Your task to perform on an android device: Show me recent news Image 0: 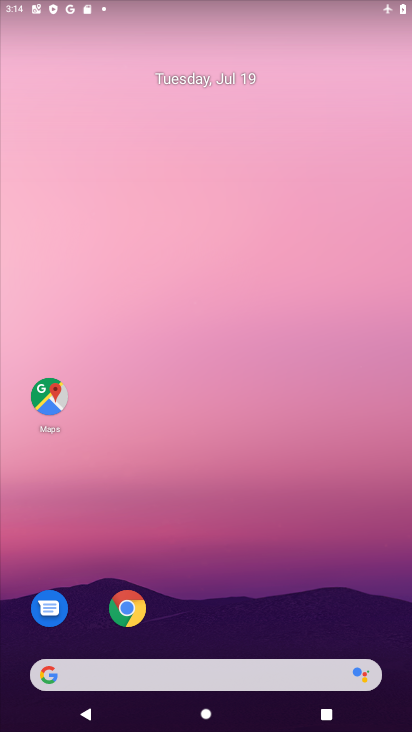
Step 0: drag from (312, 610) to (122, 156)
Your task to perform on an android device: Show me recent news Image 1: 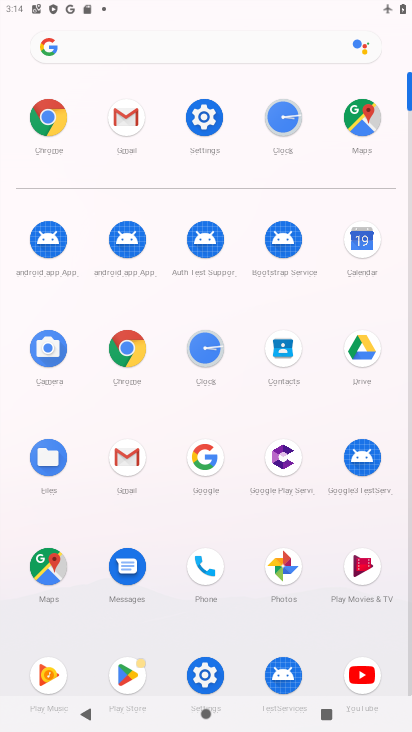
Step 1: click (52, 115)
Your task to perform on an android device: Show me recent news Image 2: 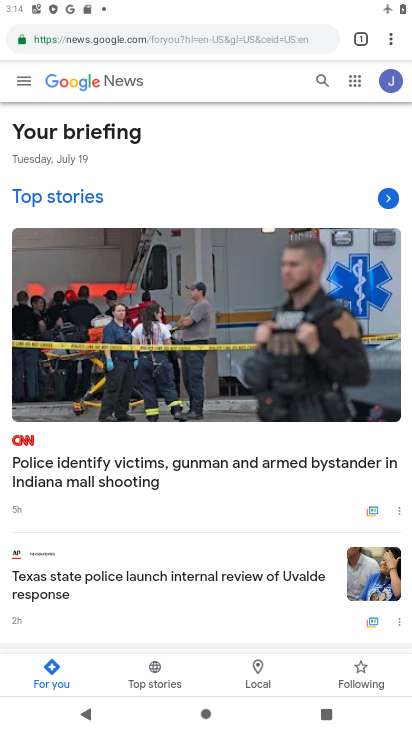
Step 2: task complete